Your task to perform on an android device: Open accessibility settings Image 0: 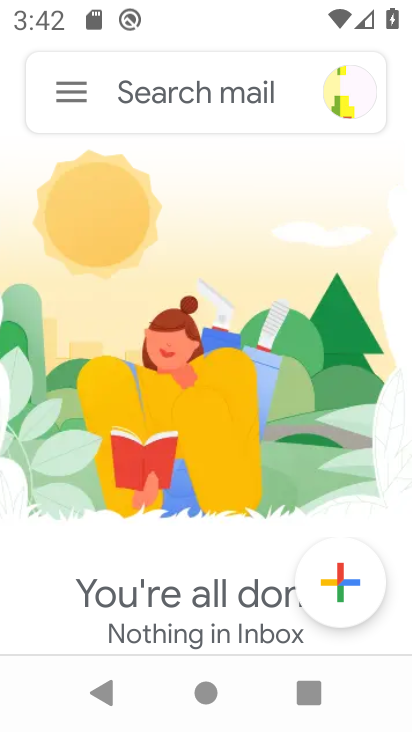
Step 0: press home button
Your task to perform on an android device: Open accessibility settings Image 1: 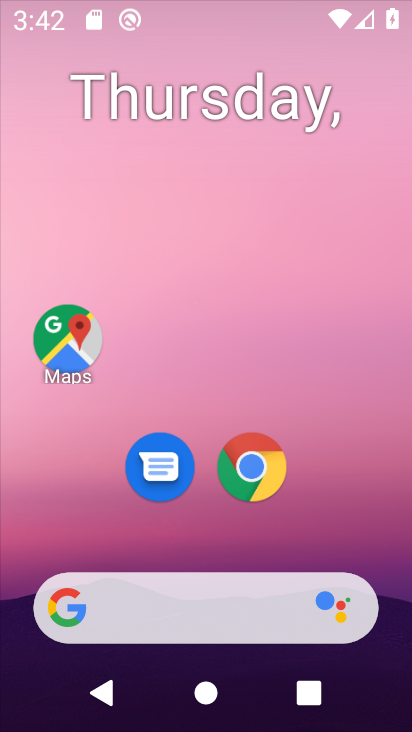
Step 1: drag from (157, 578) to (277, 142)
Your task to perform on an android device: Open accessibility settings Image 2: 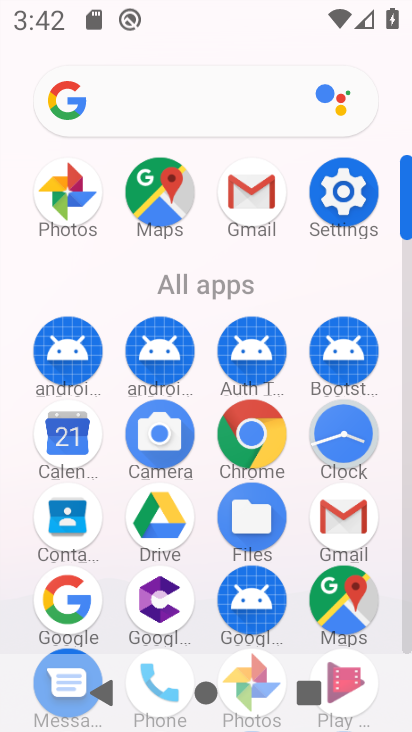
Step 2: click (348, 218)
Your task to perform on an android device: Open accessibility settings Image 3: 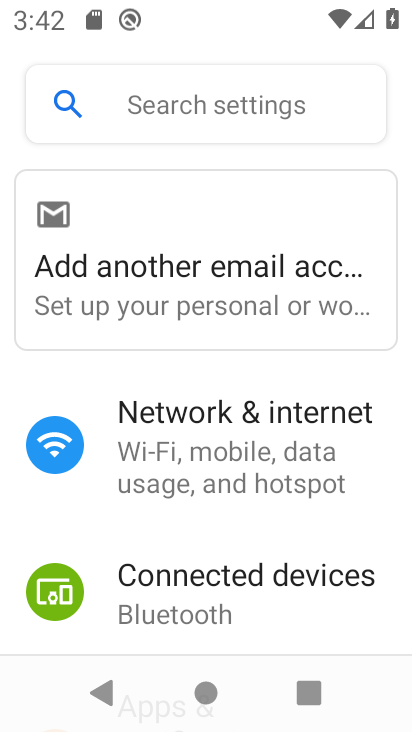
Step 3: drag from (235, 563) to (294, 187)
Your task to perform on an android device: Open accessibility settings Image 4: 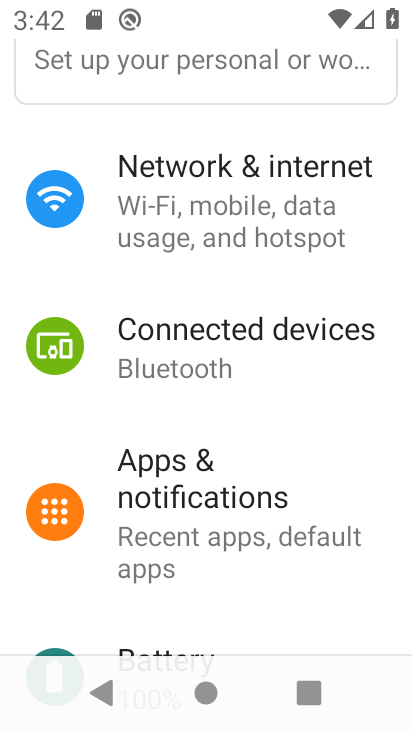
Step 4: drag from (204, 496) to (294, 22)
Your task to perform on an android device: Open accessibility settings Image 5: 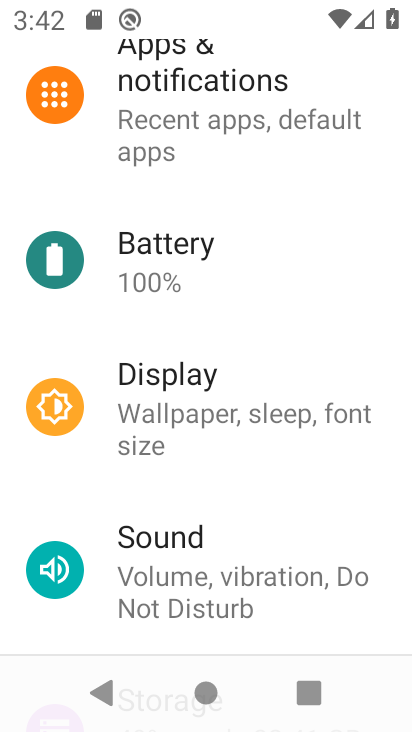
Step 5: drag from (220, 501) to (311, 60)
Your task to perform on an android device: Open accessibility settings Image 6: 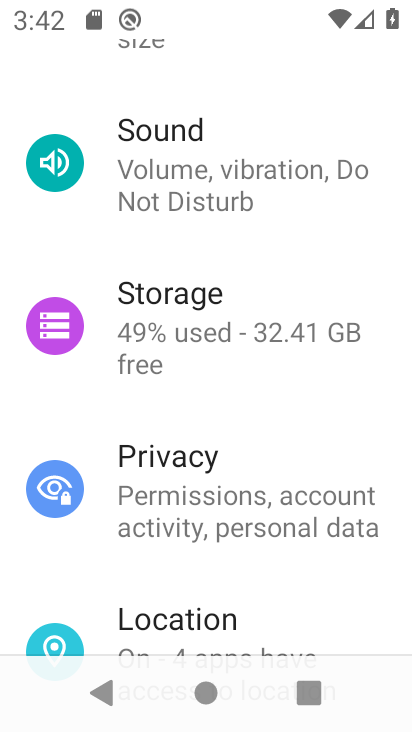
Step 6: drag from (190, 531) to (275, 67)
Your task to perform on an android device: Open accessibility settings Image 7: 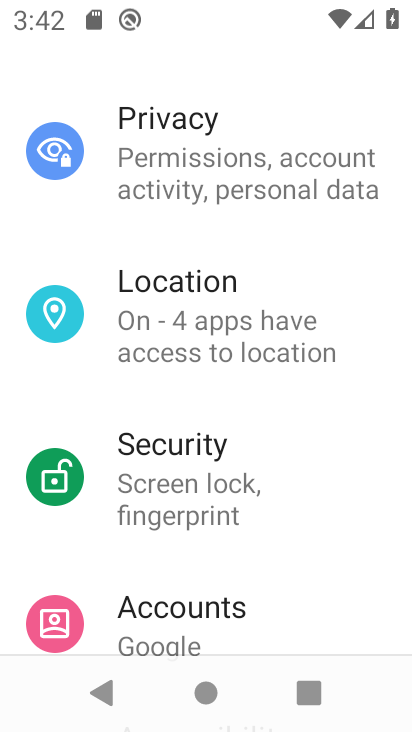
Step 7: drag from (183, 602) to (262, 149)
Your task to perform on an android device: Open accessibility settings Image 8: 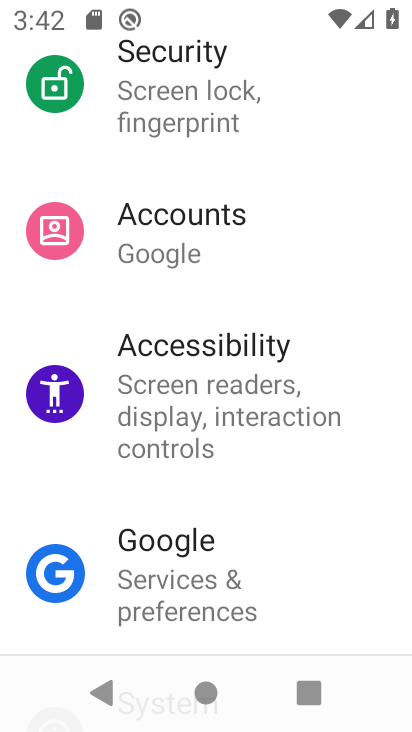
Step 8: drag from (220, 530) to (233, 396)
Your task to perform on an android device: Open accessibility settings Image 9: 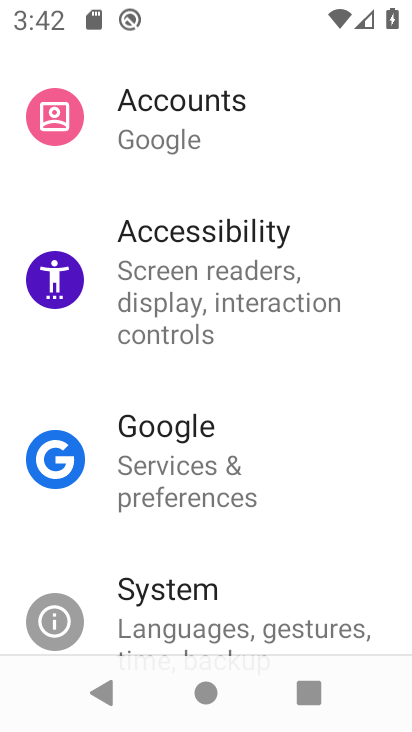
Step 9: click (167, 258)
Your task to perform on an android device: Open accessibility settings Image 10: 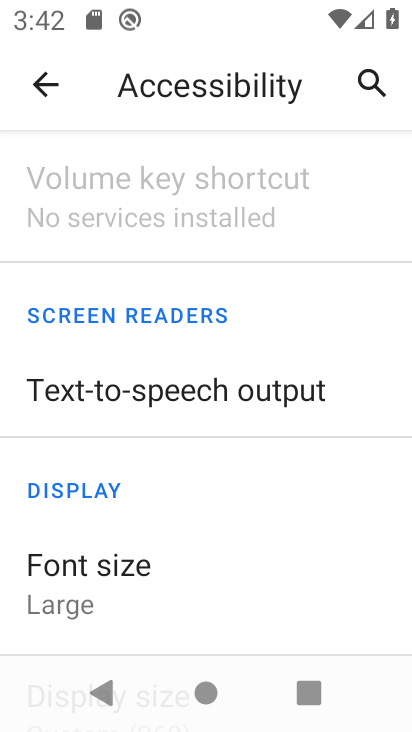
Step 10: task complete